Your task to perform on an android device: Play the latest video from the Wall Street Journal Image 0: 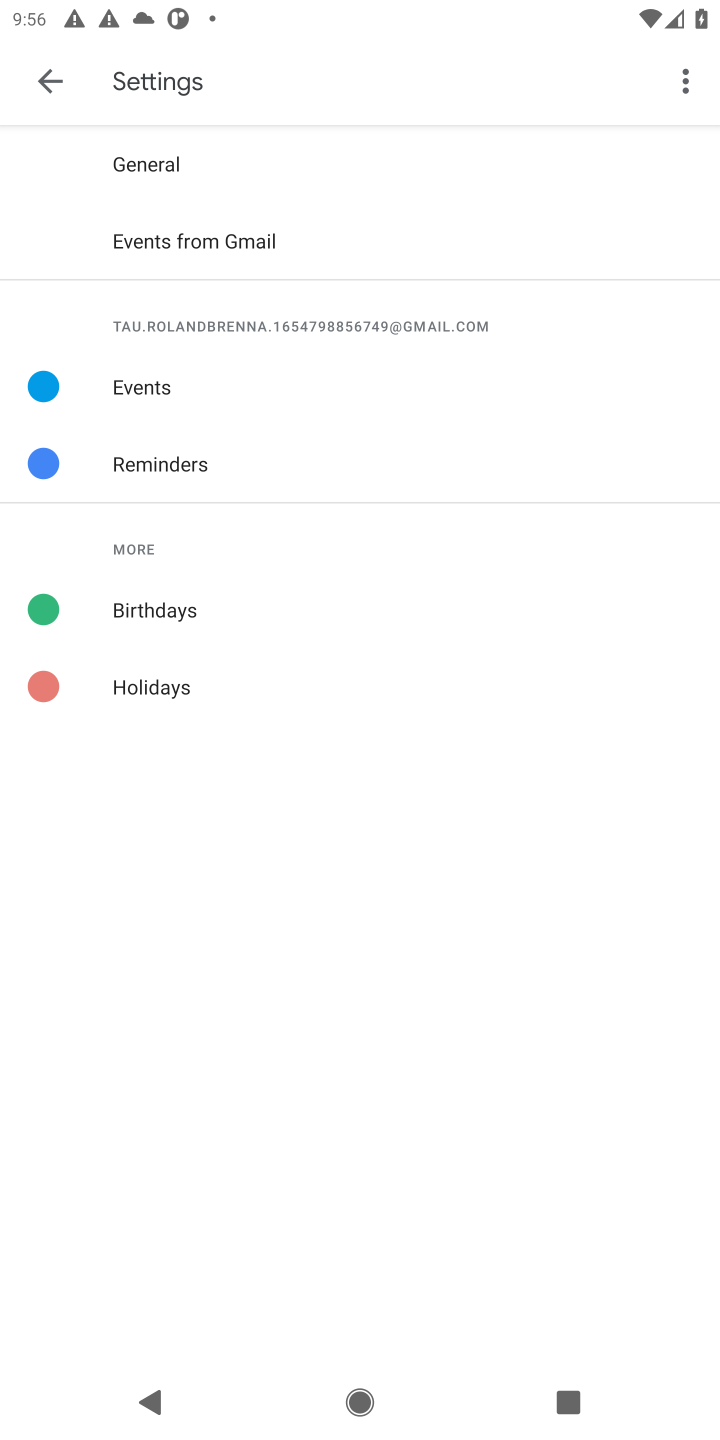
Step 0: press home button
Your task to perform on an android device: Play the latest video from the Wall Street Journal Image 1: 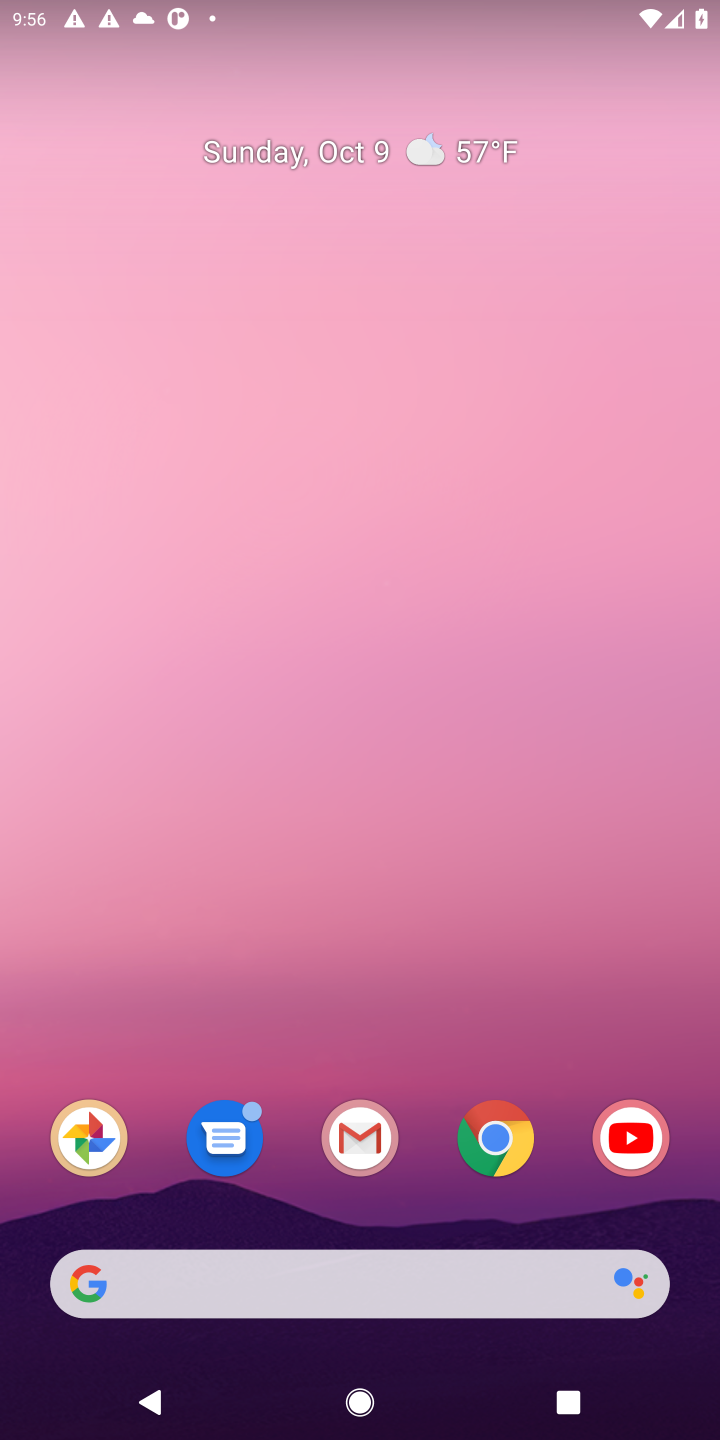
Step 1: click (489, 1131)
Your task to perform on an android device: Play the latest video from the Wall Street Journal Image 2: 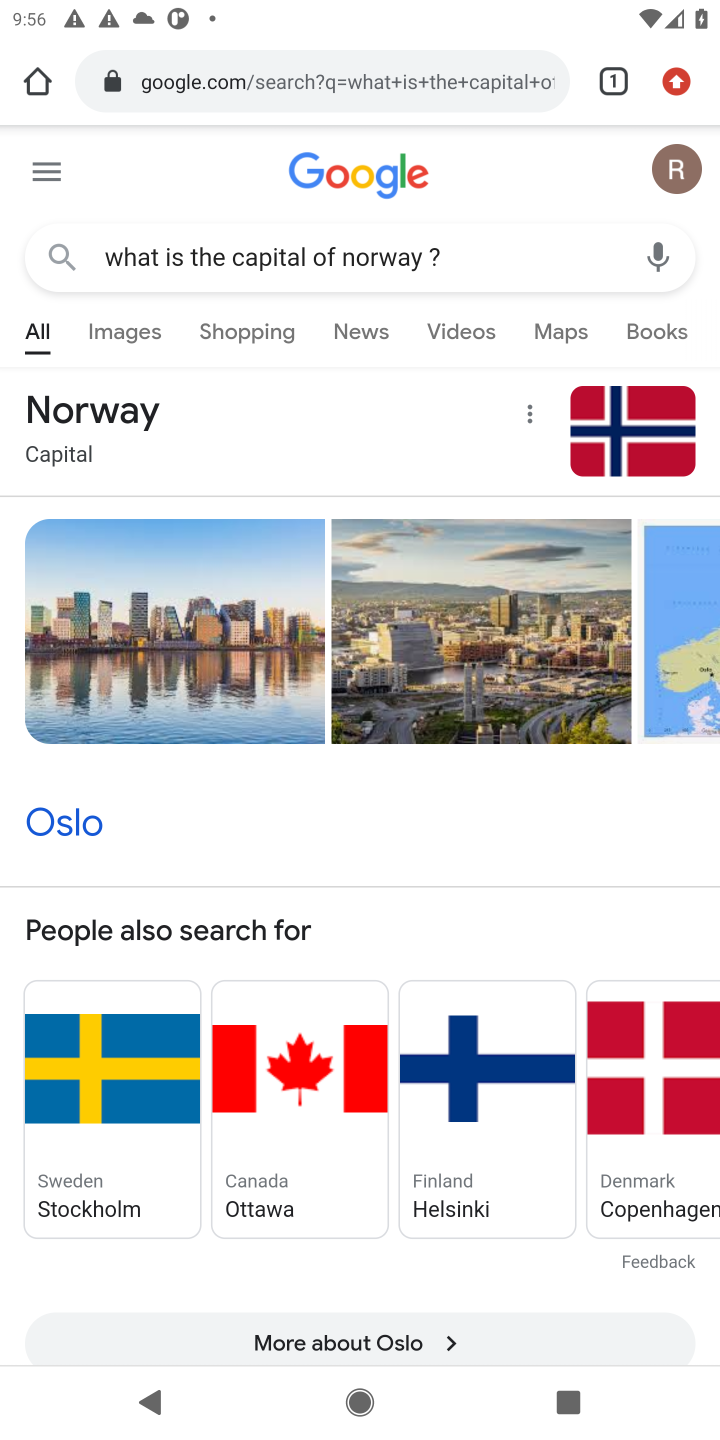
Step 2: click (476, 76)
Your task to perform on an android device: Play the latest video from the Wall Street Journal Image 3: 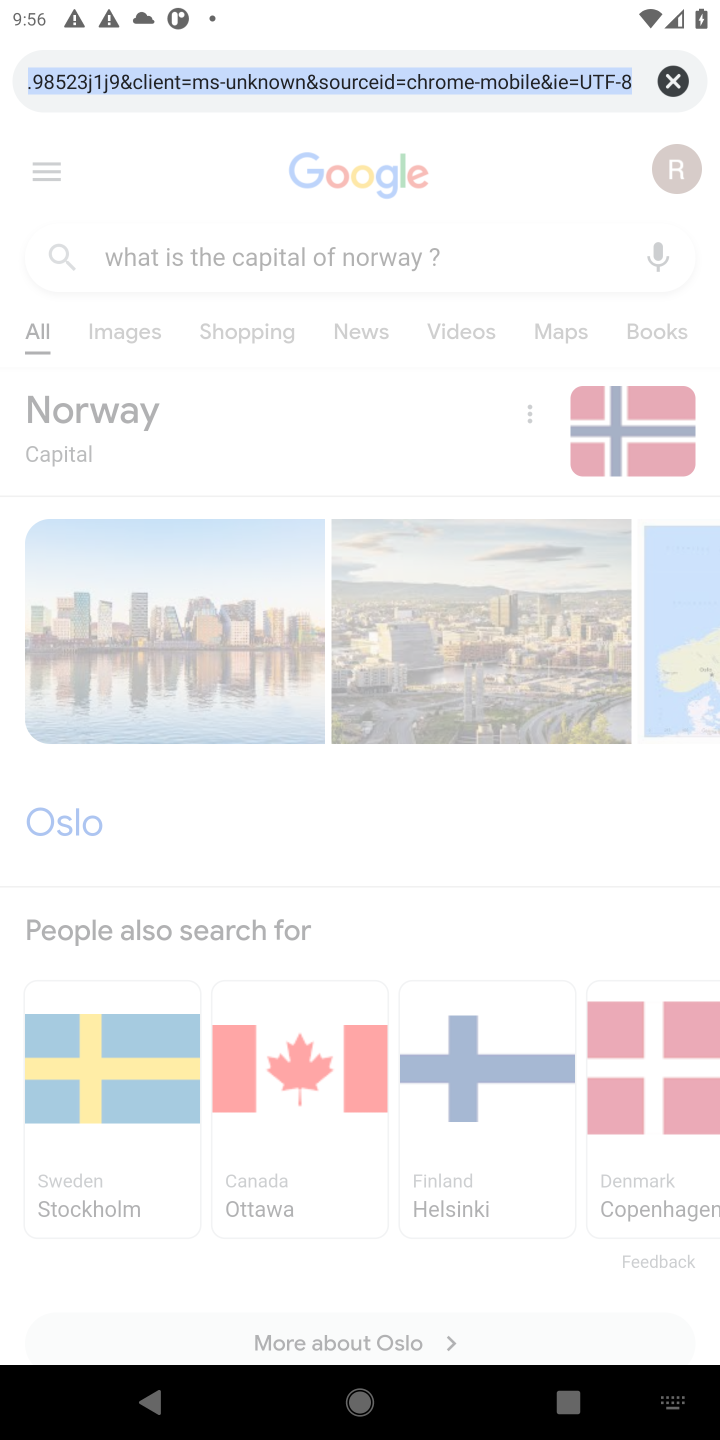
Step 3: click (678, 80)
Your task to perform on an android device: Play the latest video from the Wall Street Journal Image 4: 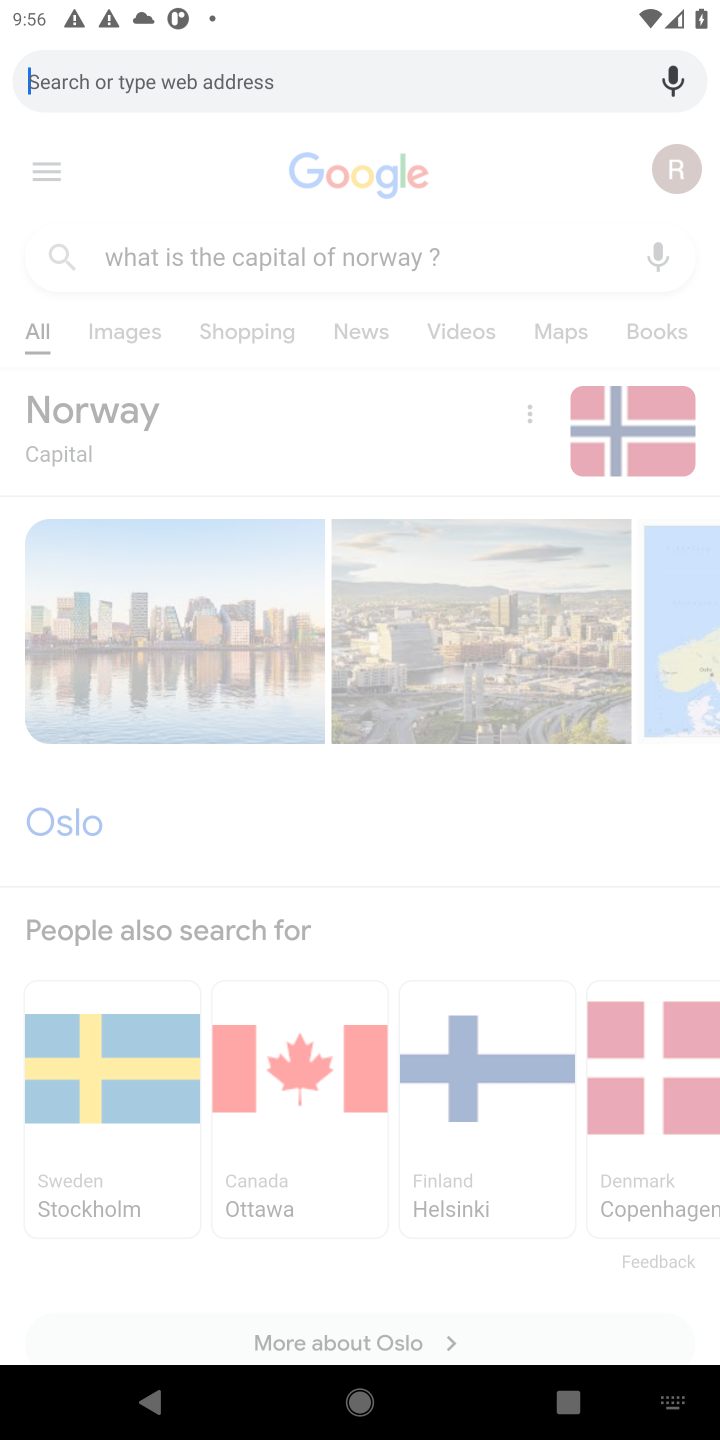
Step 4: type "the latest video from the wall street journal"
Your task to perform on an android device: Play the latest video from the Wall Street Journal Image 5: 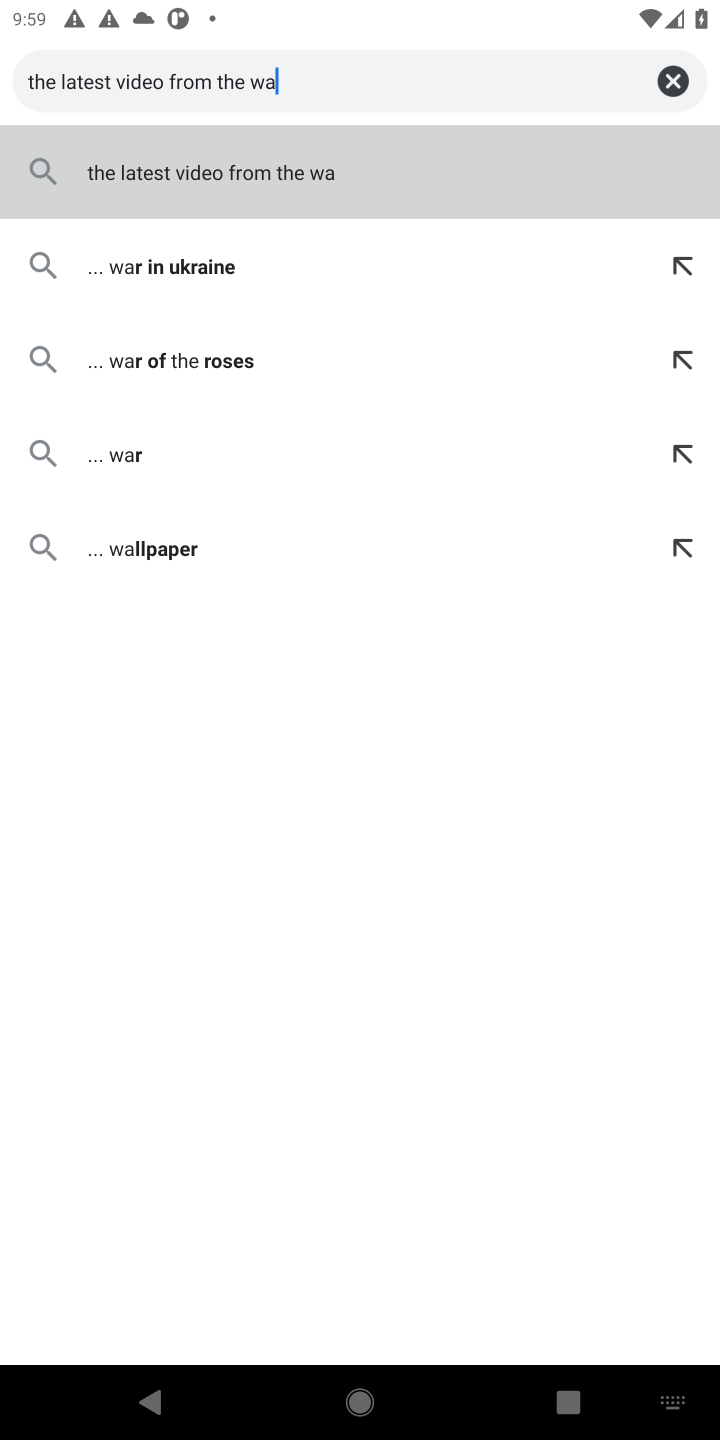
Step 5: click (277, 155)
Your task to perform on an android device: Play the latest video from the Wall Street Journal Image 6: 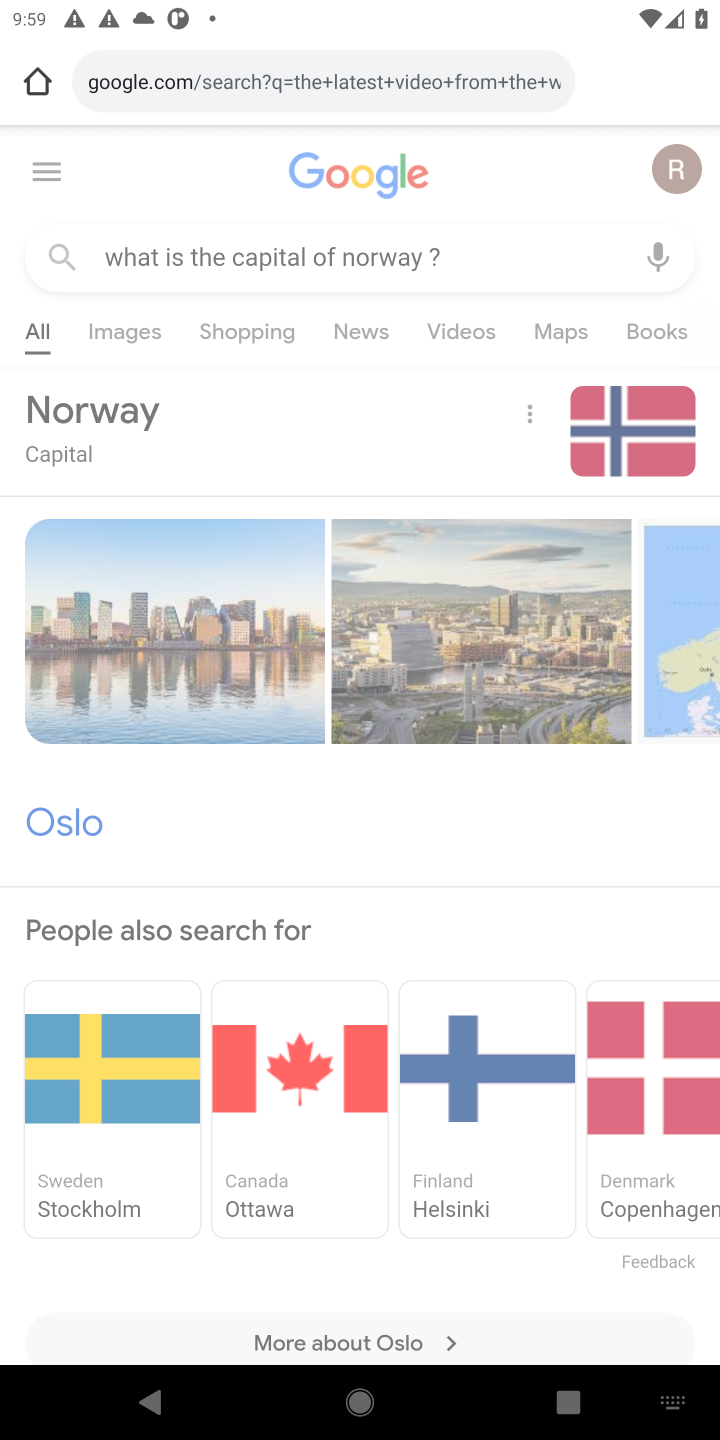
Step 6: task complete